Your task to perform on an android device: Clear the cart on target.com. Image 0: 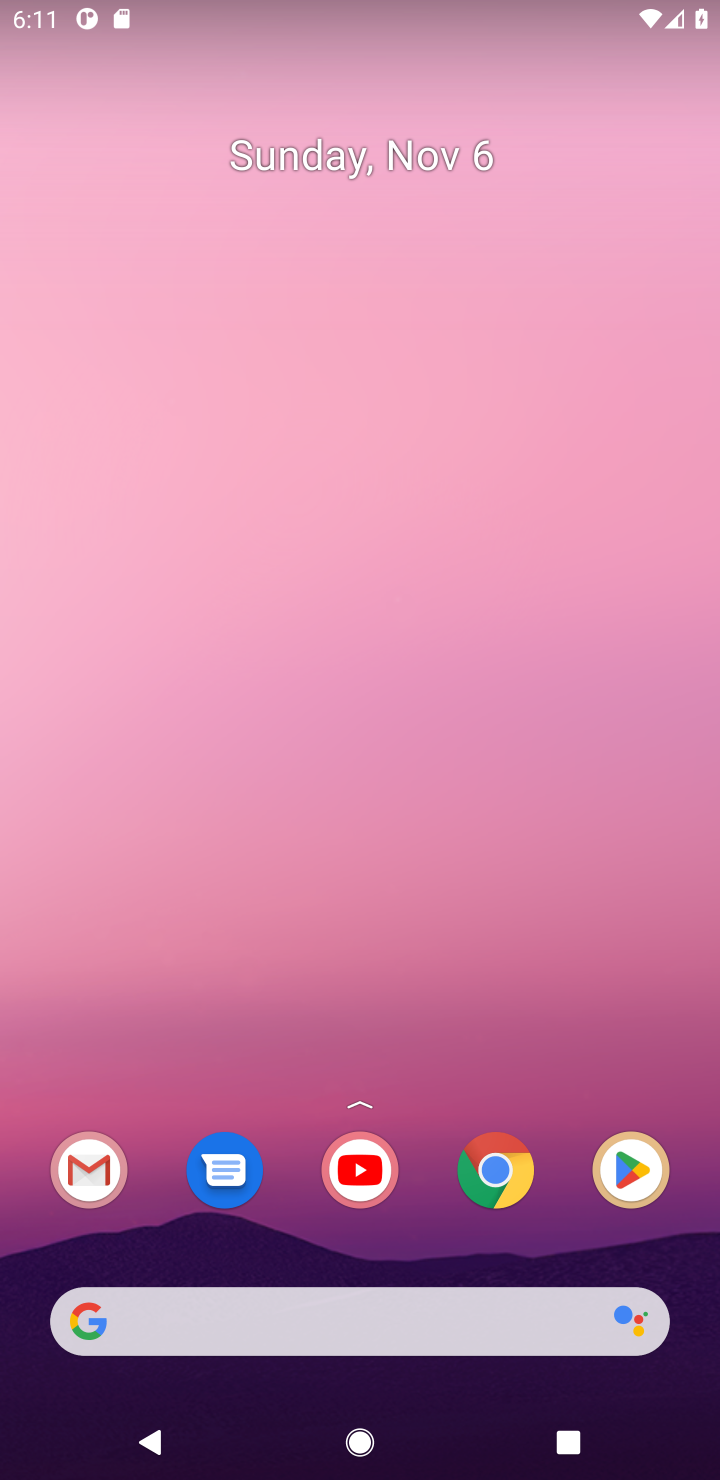
Step 0: click (491, 1180)
Your task to perform on an android device: Clear the cart on target.com. Image 1: 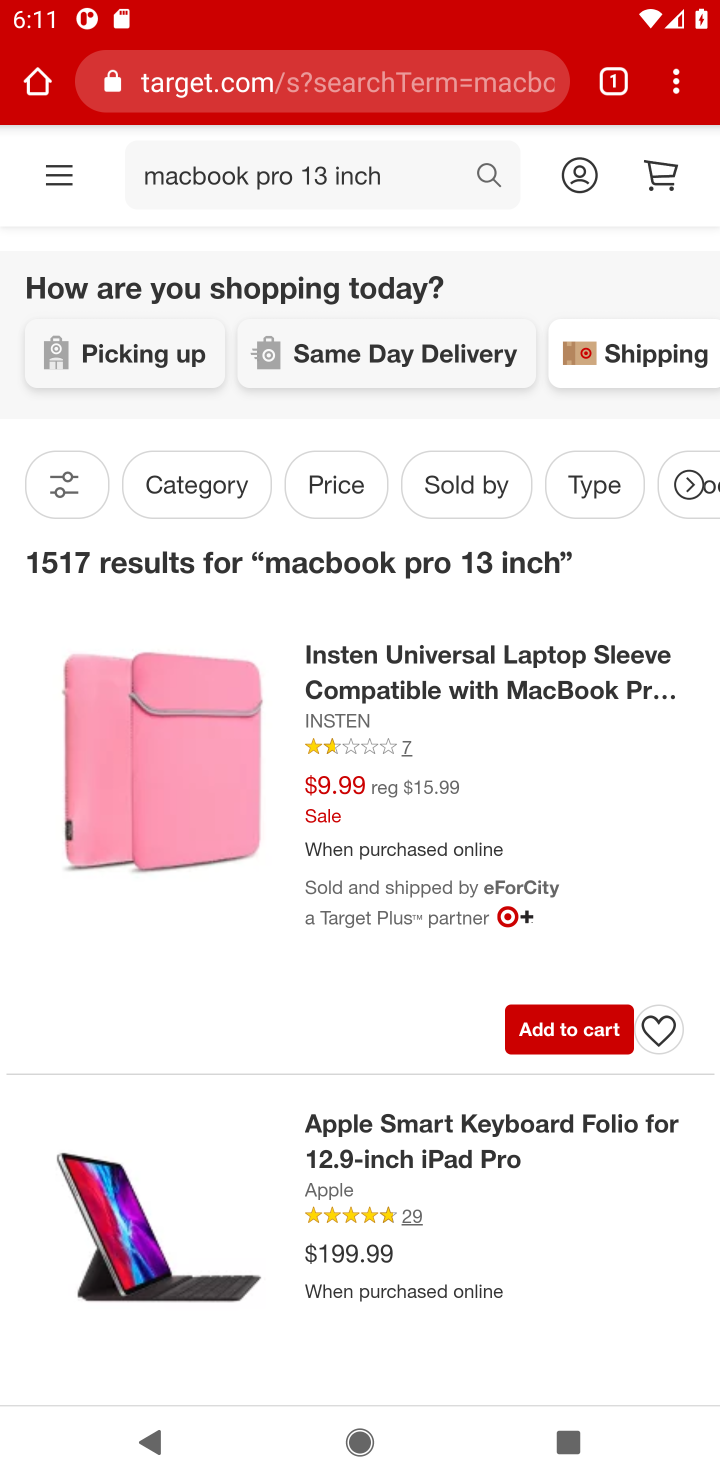
Step 1: click (651, 190)
Your task to perform on an android device: Clear the cart on target.com. Image 2: 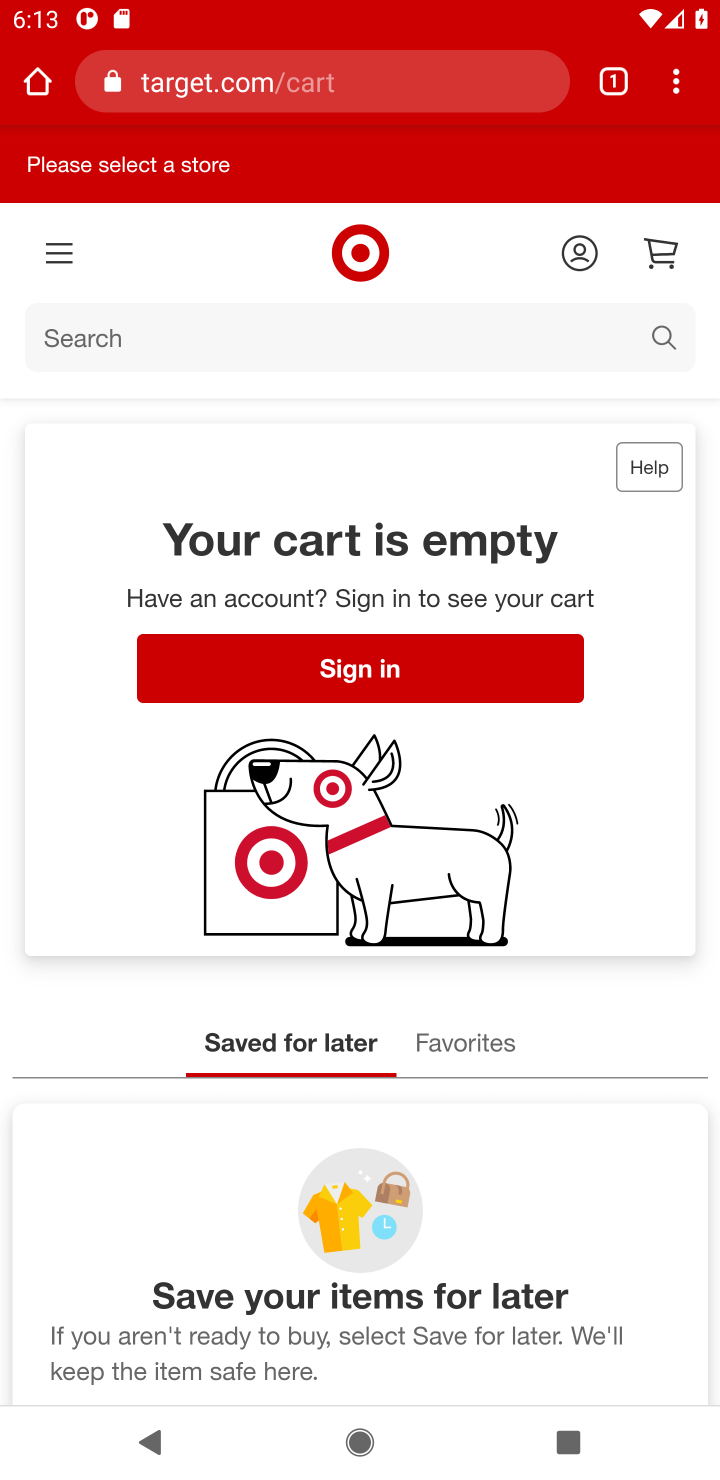
Step 2: task complete